Your task to perform on an android device: delete the emails in spam in the gmail app Image 0: 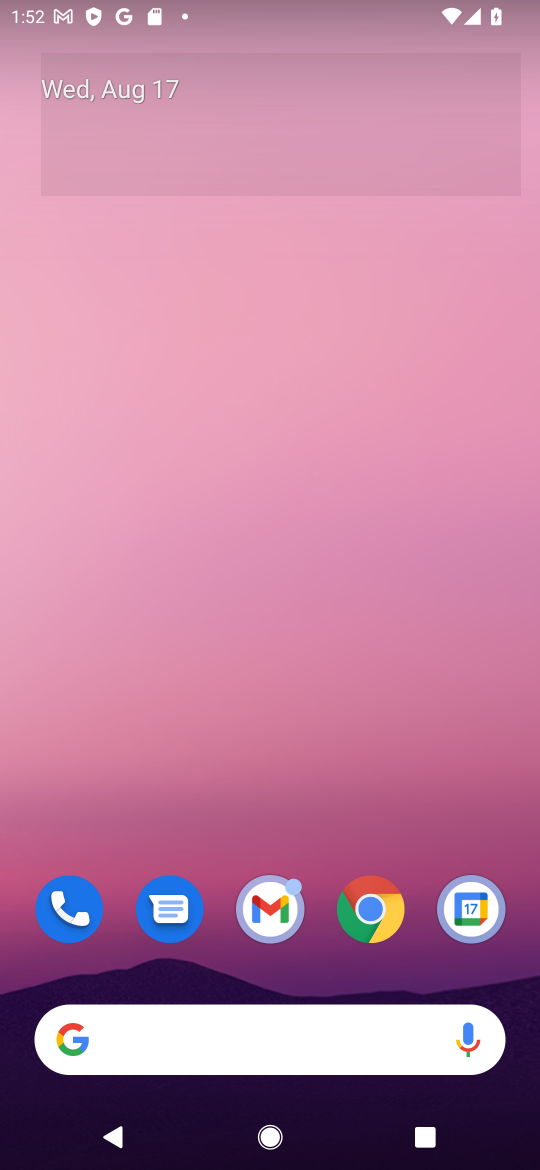
Step 0: drag from (297, 650) to (381, 153)
Your task to perform on an android device: delete the emails in spam in the gmail app Image 1: 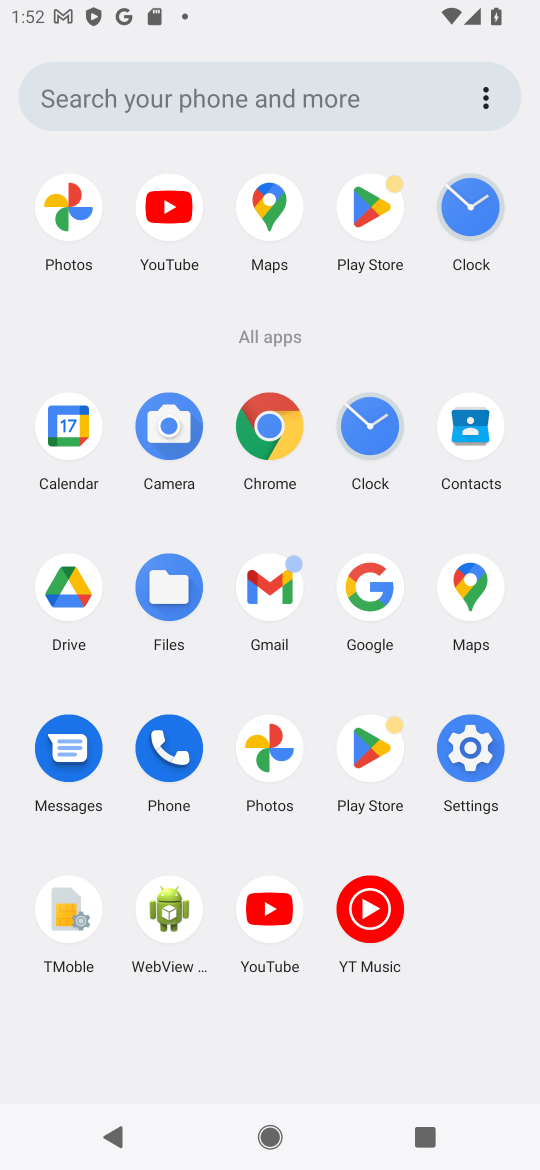
Step 1: task complete